Your task to perform on an android device: Open Youtube and go to "Your channel" Image 0: 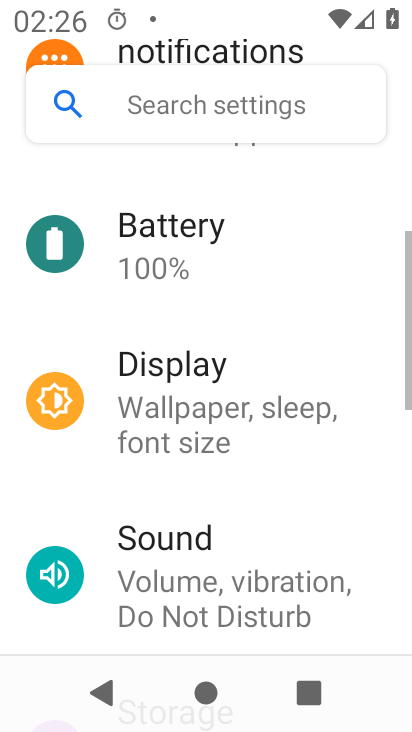
Step 0: press home button
Your task to perform on an android device: Open Youtube and go to "Your channel" Image 1: 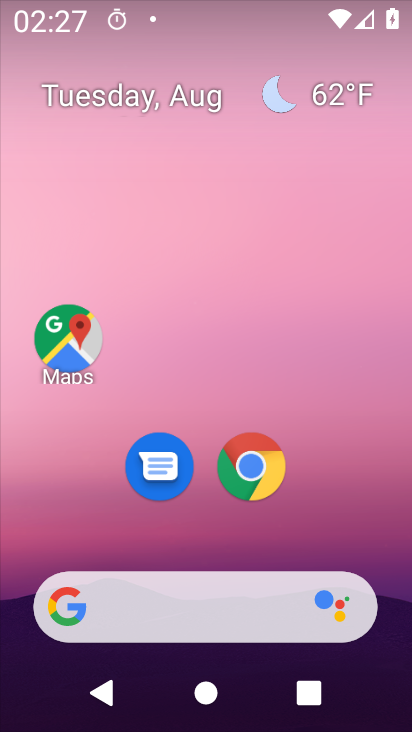
Step 1: drag from (391, 551) to (392, 198)
Your task to perform on an android device: Open Youtube and go to "Your channel" Image 2: 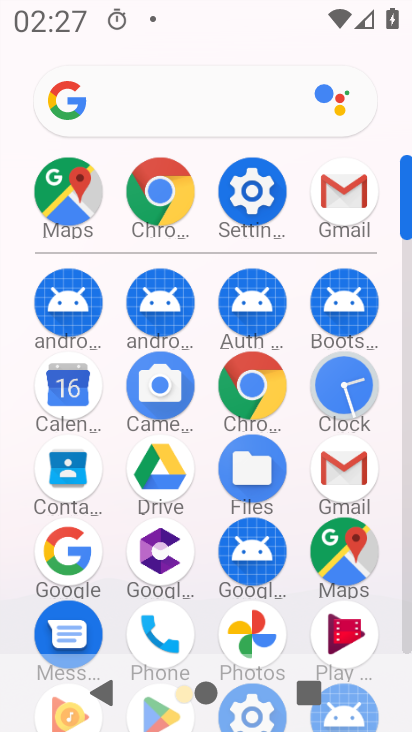
Step 2: drag from (389, 657) to (387, 439)
Your task to perform on an android device: Open Youtube and go to "Your channel" Image 3: 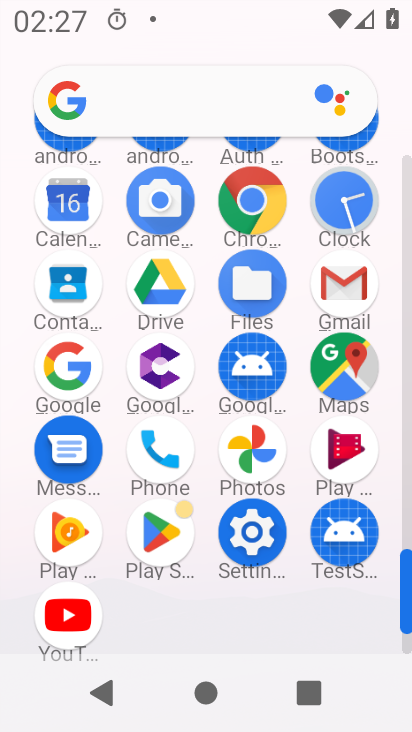
Step 3: click (75, 627)
Your task to perform on an android device: Open Youtube and go to "Your channel" Image 4: 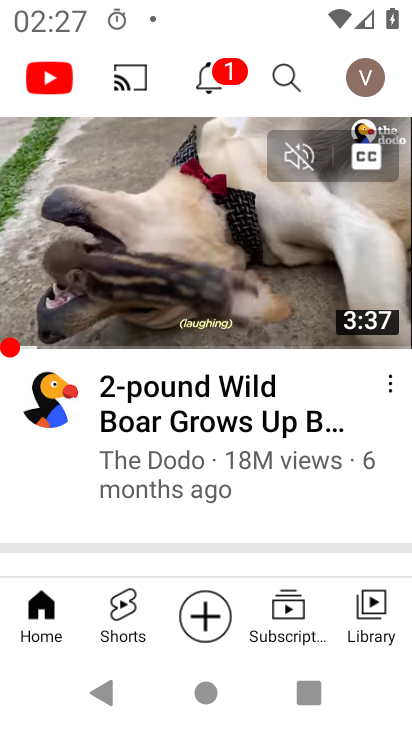
Step 4: click (368, 77)
Your task to perform on an android device: Open Youtube and go to "Your channel" Image 5: 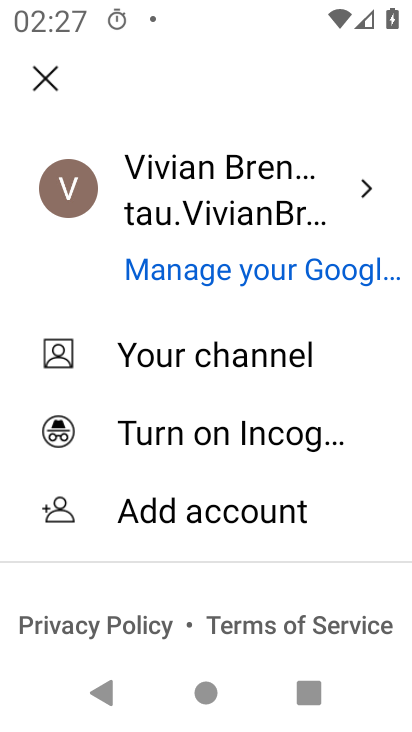
Step 5: click (269, 376)
Your task to perform on an android device: Open Youtube and go to "Your channel" Image 6: 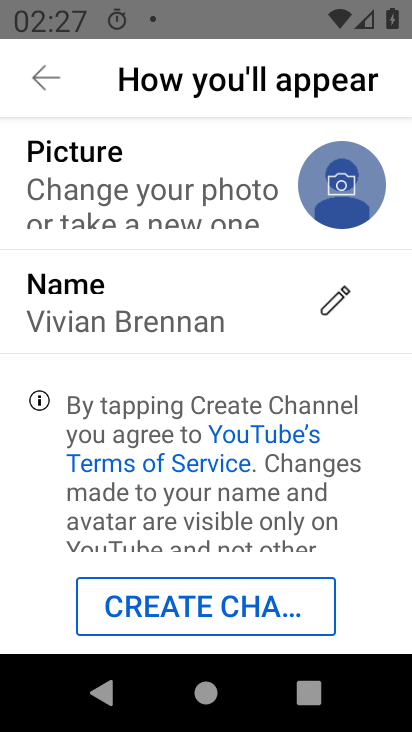
Step 6: task complete